Your task to perform on an android device: open app "TextNow: Call + Text Unlimited" (install if not already installed) and enter user name: "stoke@yahoo.com" and password: "prompted" Image 0: 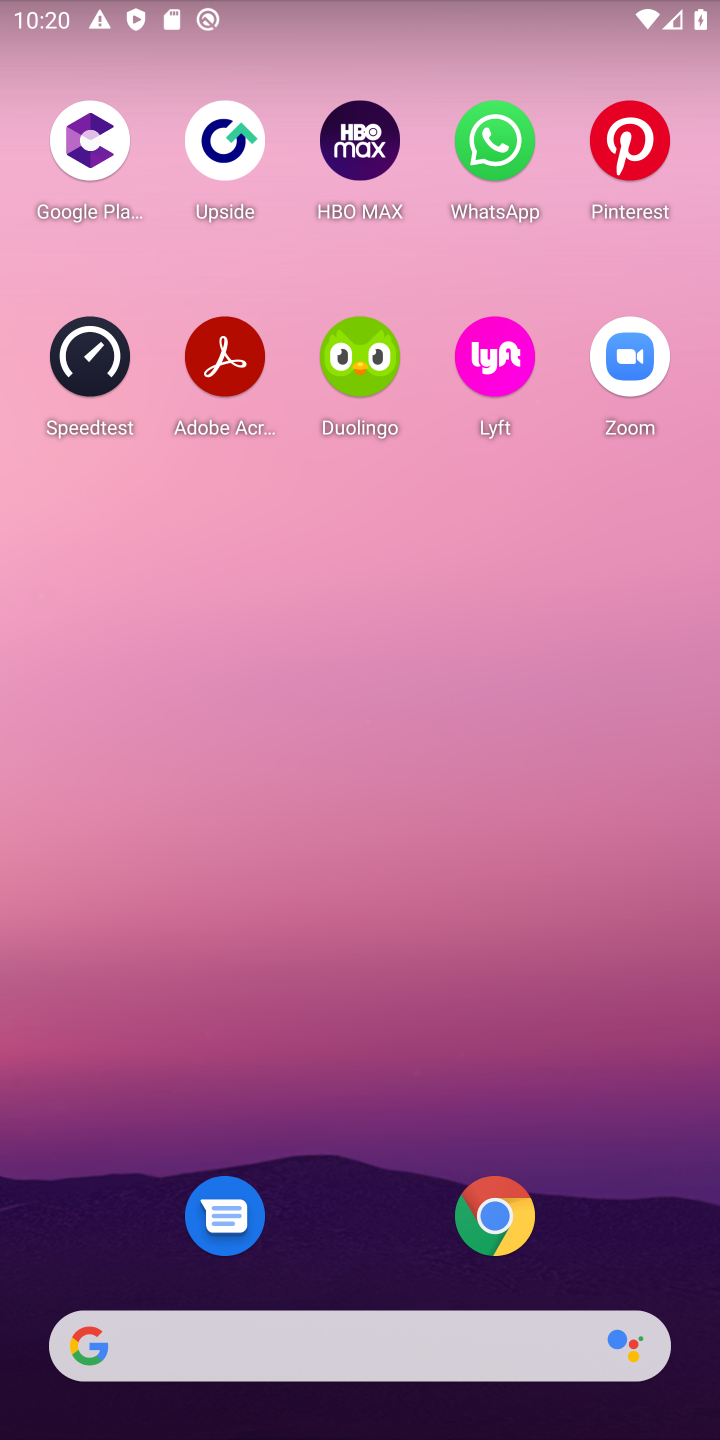
Step 0: drag from (464, 849) to (487, 23)
Your task to perform on an android device: open app "TextNow: Call + Text Unlimited" (install if not already installed) and enter user name: "stoke@yahoo.com" and password: "prompted" Image 1: 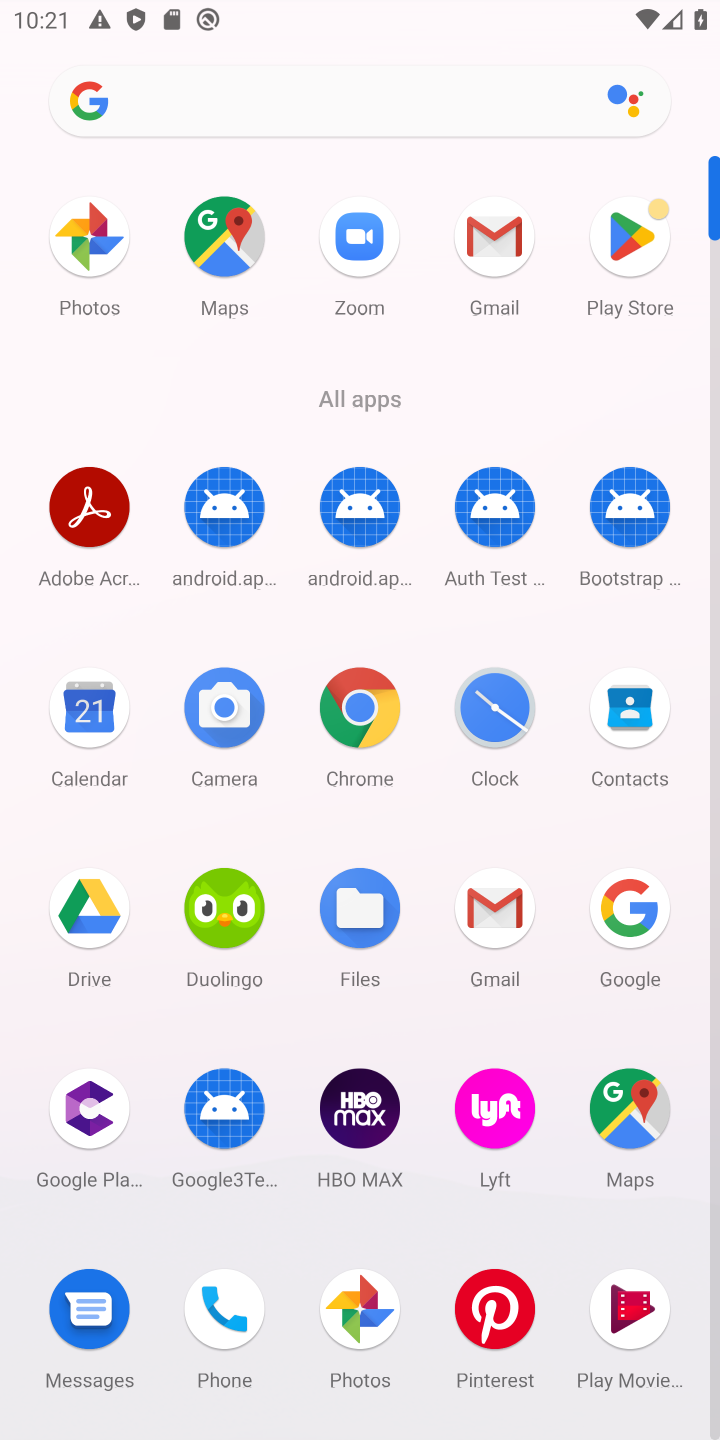
Step 1: click (616, 226)
Your task to perform on an android device: open app "TextNow: Call + Text Unlimited" (install if not already installed) and enter user name: "stoke@yahoo.com" and password: "prompted" Image 2: 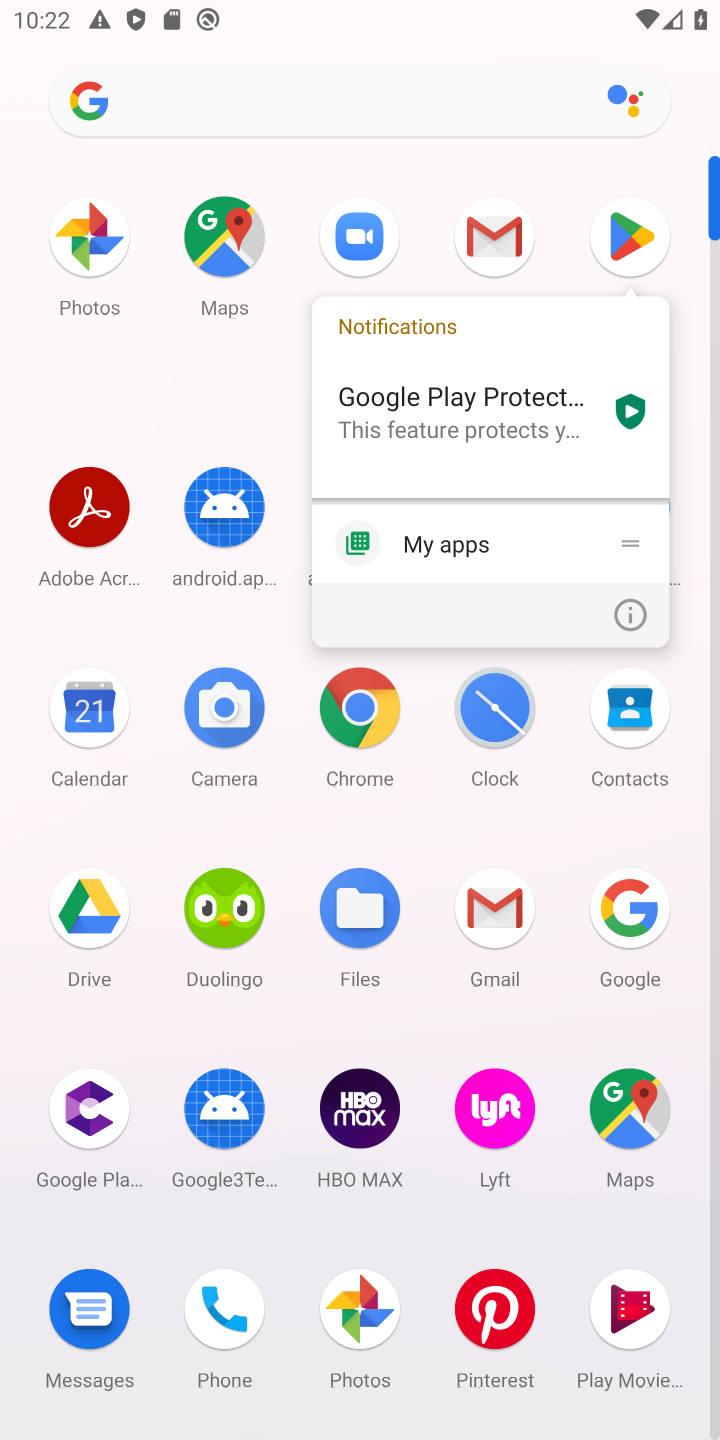
Step 2: click (610, 257)
Your task to perform on an android device: open app "TextNow: Call + Text Unlimited" (install if not already installed) and enter user name: "stoke@yahoo.com" and password: "prompted" Image 3: 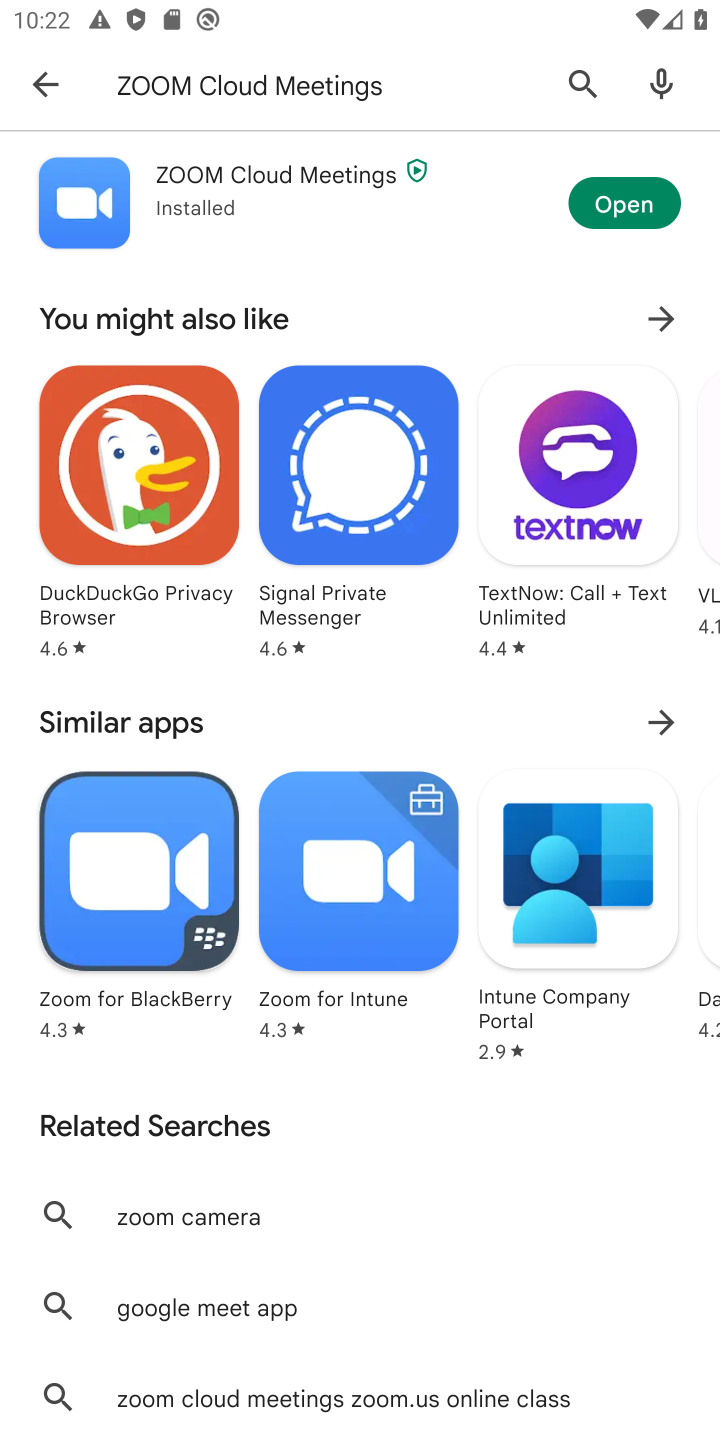
Step 3: press back button
Your task to perform on an android device: open app "TextNow: Call + Text Unlimited" (install if not already installed) and enter user name: "stoke@yahoo.com" and password: "prompted" Image 4: 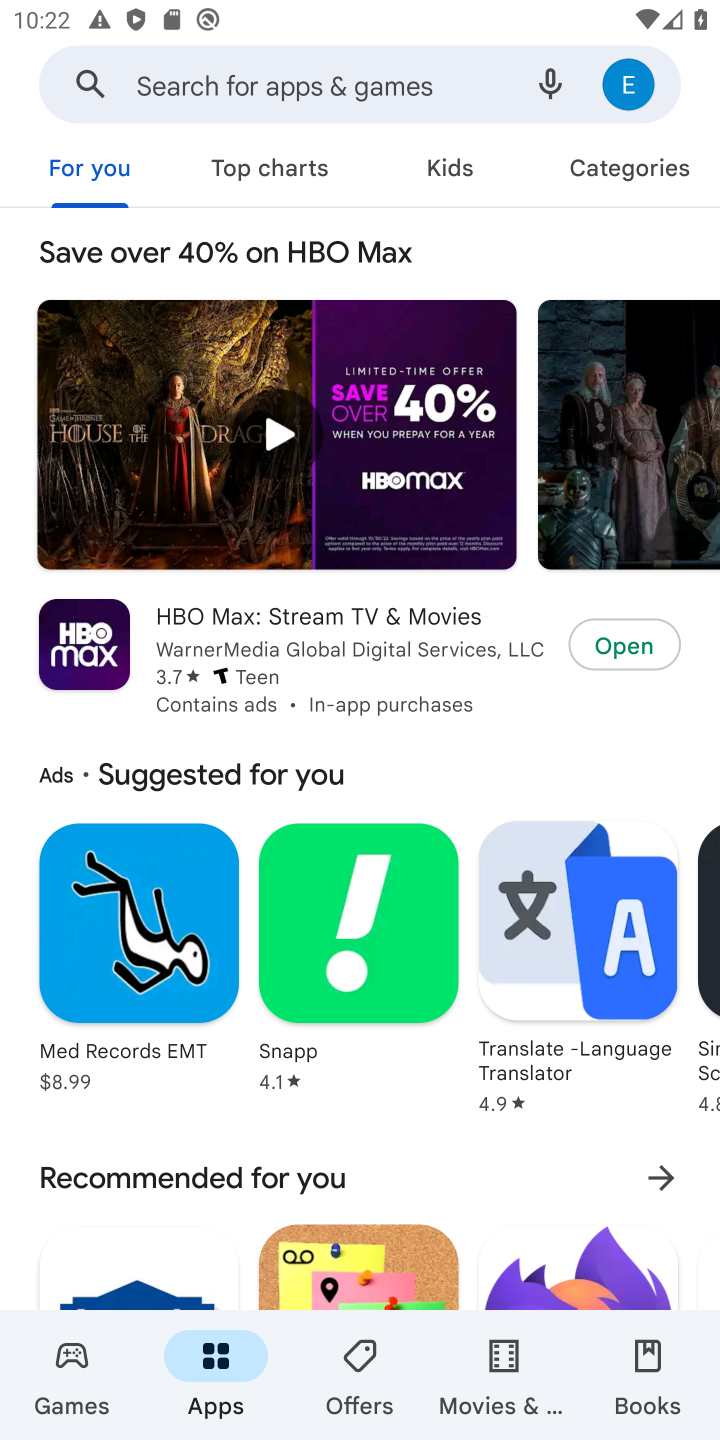
Step 4: click (284, 121)
Your task to perform on an android device: open app "TextNow: Call + Text Unlimited" (install if not already installed) and enter user name: "stoke@yahoo.com" and password: "prompted" Image 5: 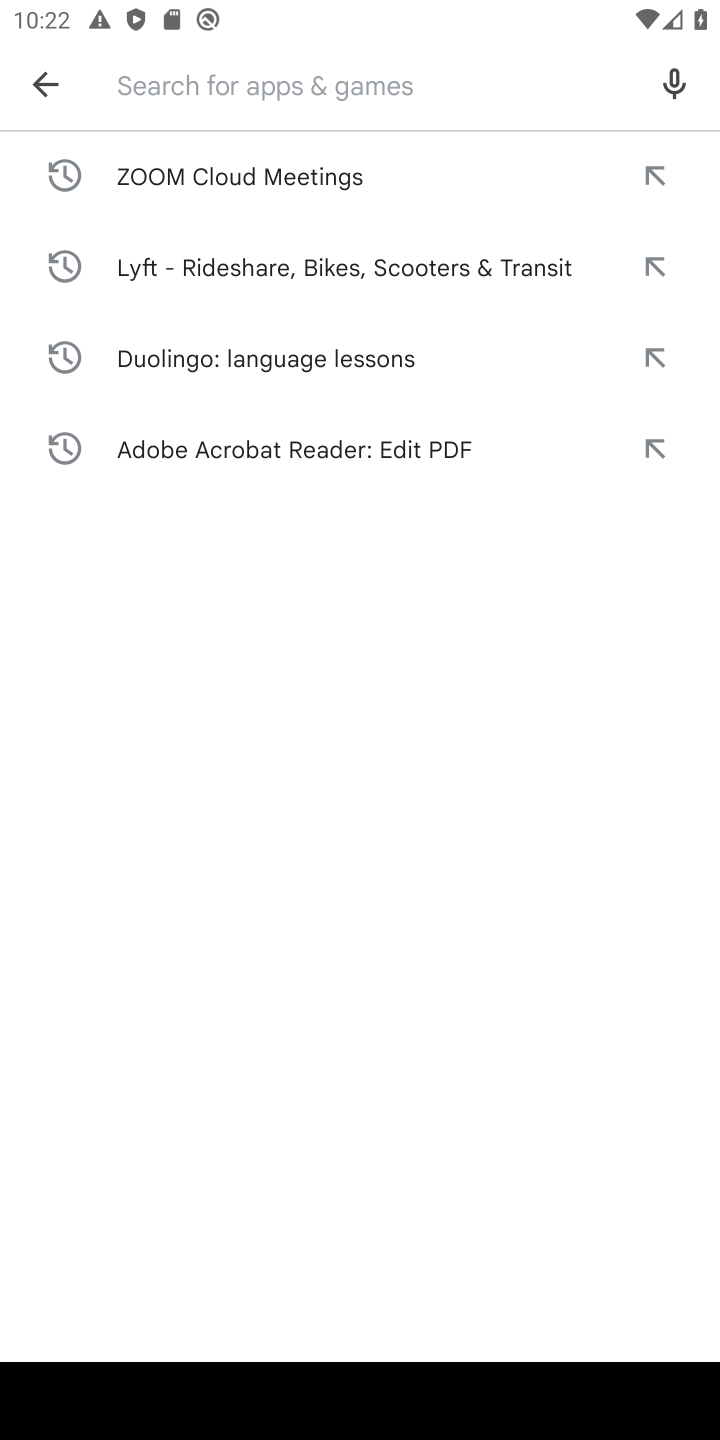
Step 5: press enter
Your task to perform on an android device: open app "TextNow: Call + Text Unlimited" (install if not already installed) and enter user name: "stoke@yahoo.com" and password: "prompted" Image 6: 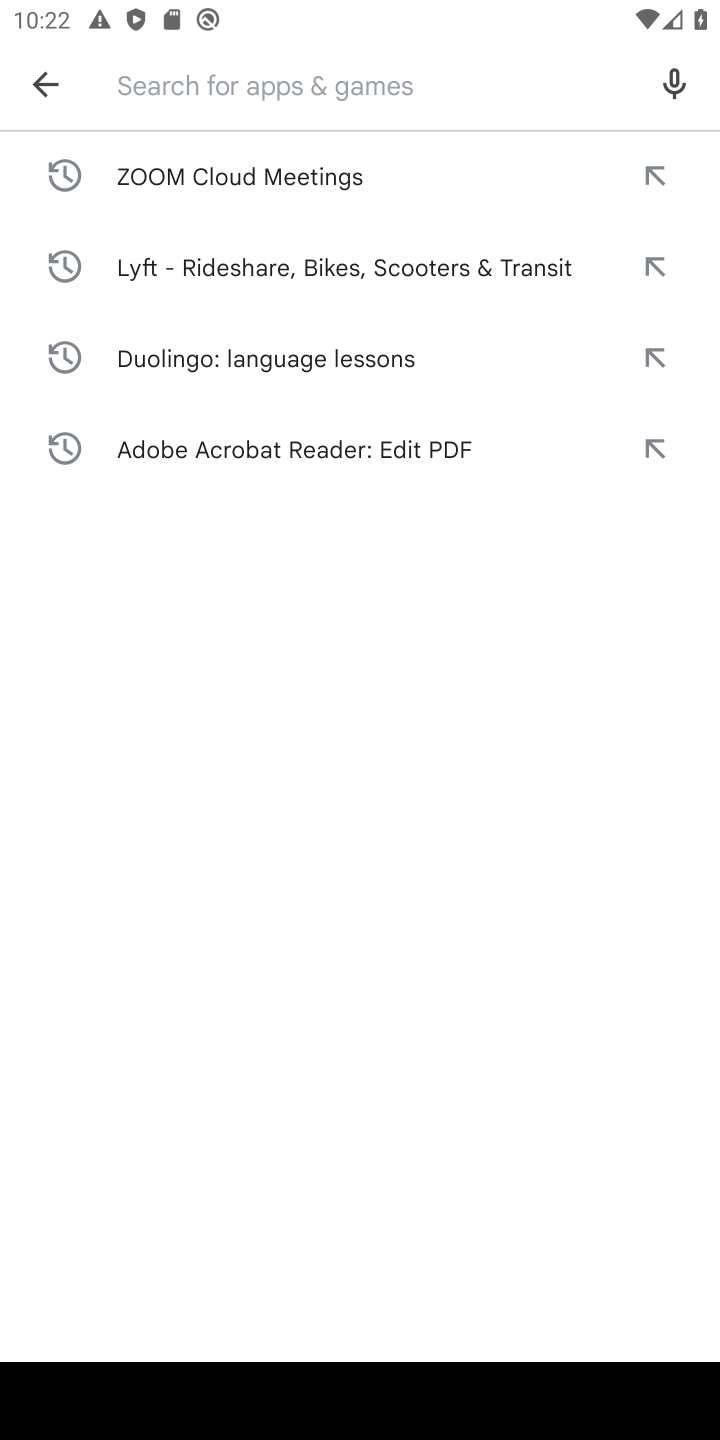
Step 6: type "TextNow: Call + Text Unlimited"
Your task to perform on an android device: open app "TextNow: Call + Text Unlimited" (install if not already installed) and enter user name: "stoke@yahoo.com" and password: "prompted" Image 7: 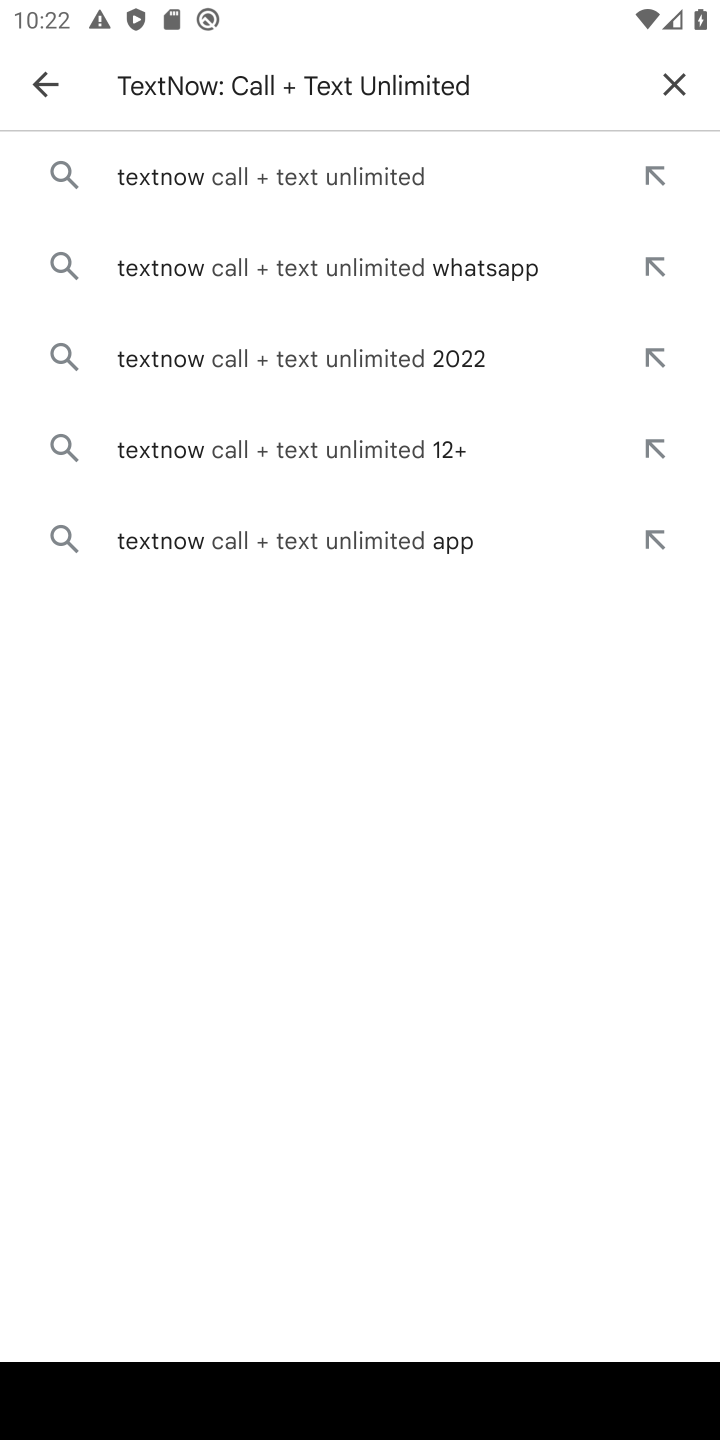
Step 7: click (289, 192)
Your task to perform on an android device: open app "TextNow: Call + Text Unlimited" (install if not already installed) and enter user name: "stoke@yahoo.com" and password: "prompted" Image 8: 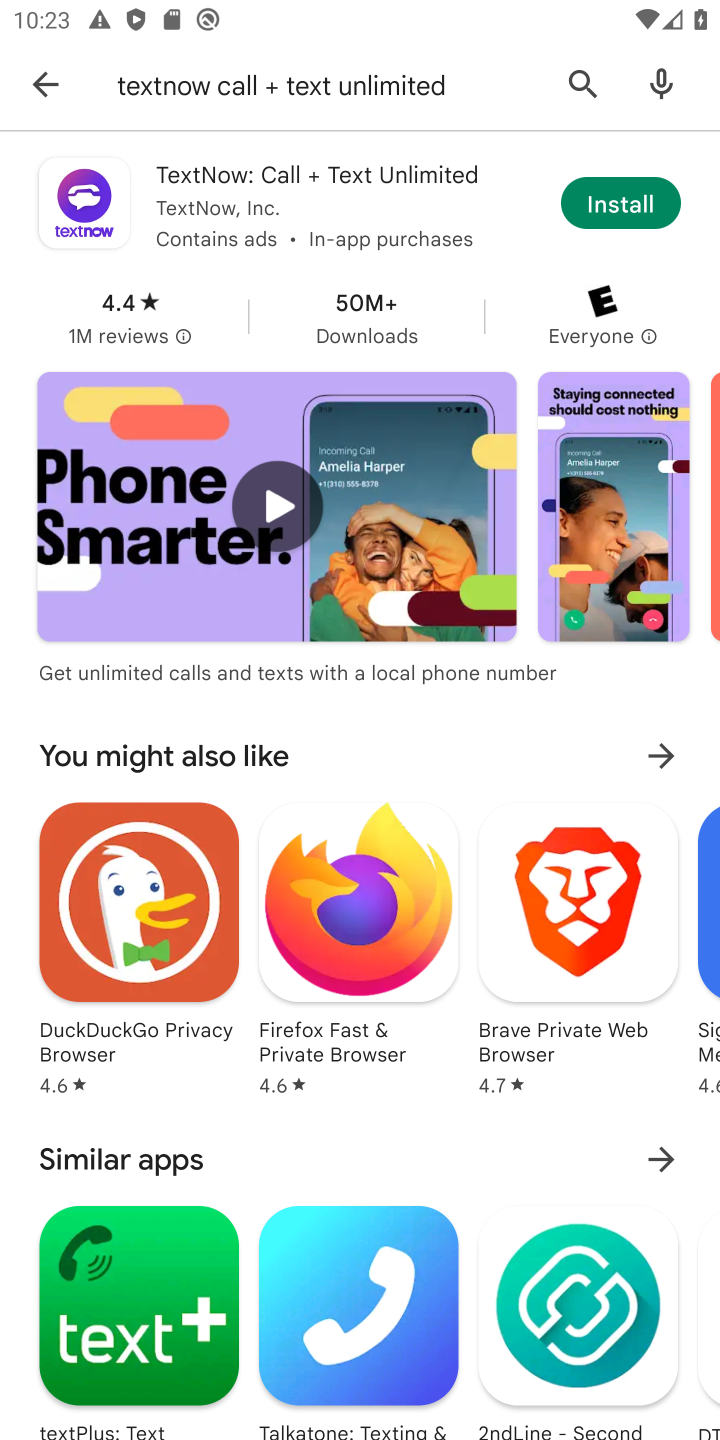
Step 8: click (623, 211)
Your task to perform on an android device: open app "TextNow: Call + Text Unlimited" (install if not already installed) and enter user name: "stoke@yahoo.com" and password: "prompted" Image 9: 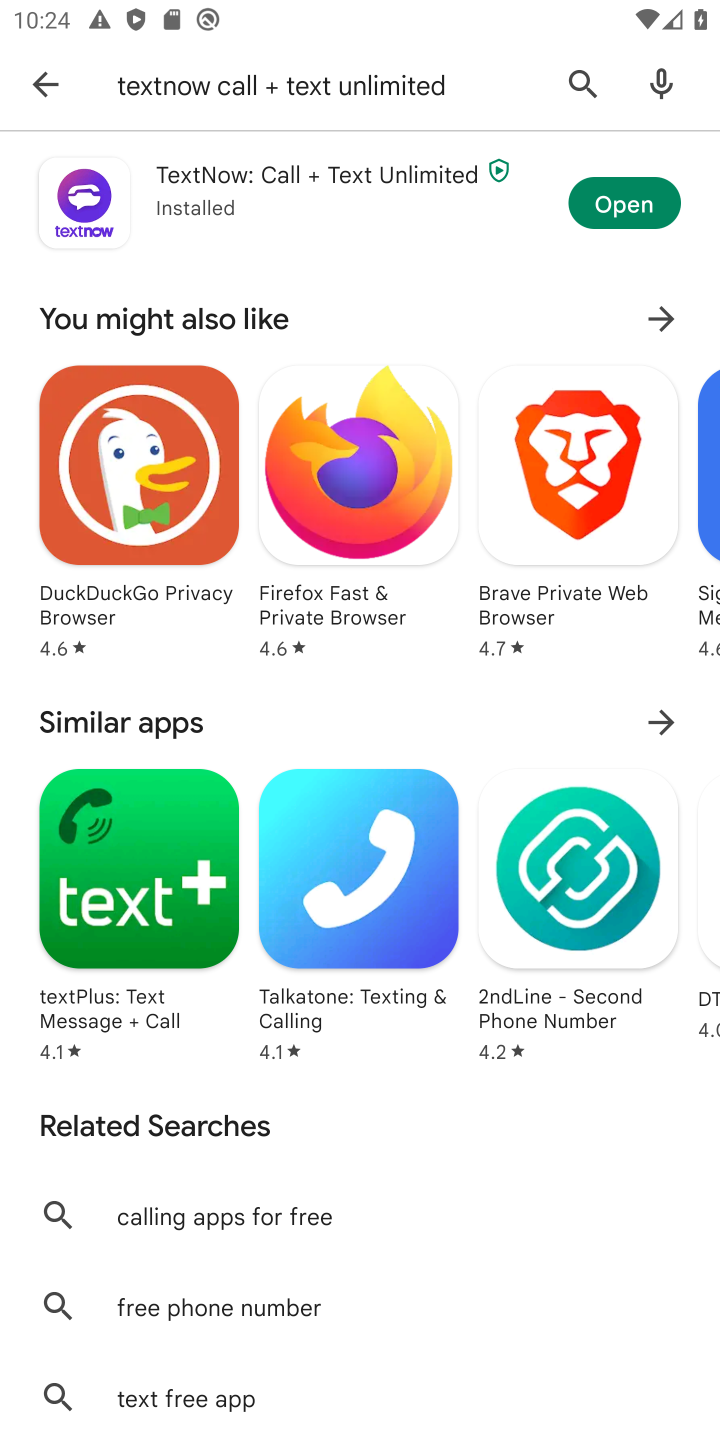
Step 9: click (585, 191)
Your task to perform on an android device: open app "TextNow: Call + Text Unlimited" (install if not already installed) and enter user name: "stoke@yahoo.com" and password: "prompted" Image 10: 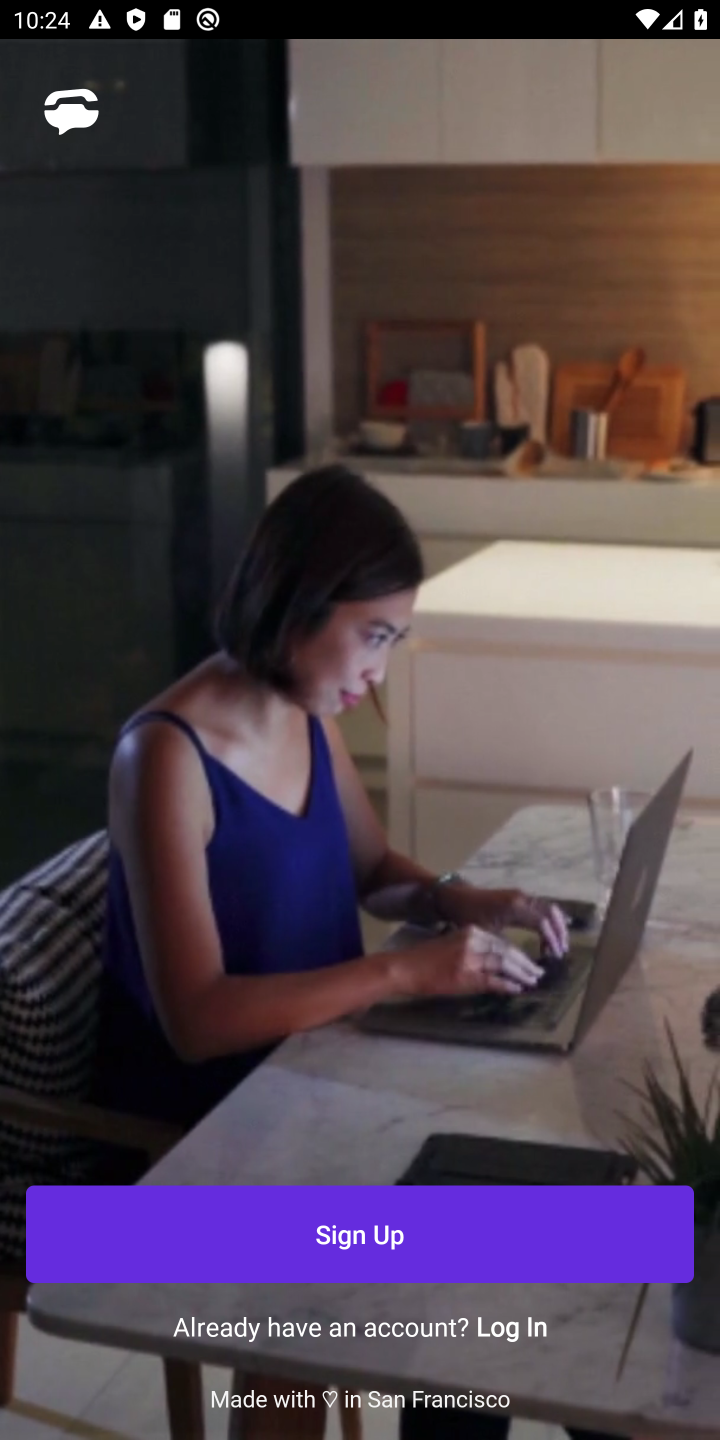
Step 10: click (477, 1326)
Your task to perform on an android device: open app "TextNow: Call + Text Unlimited" (install if not already installed) and enter user name: "stoke@yahoo.com" and password: "prompted" Image 11: 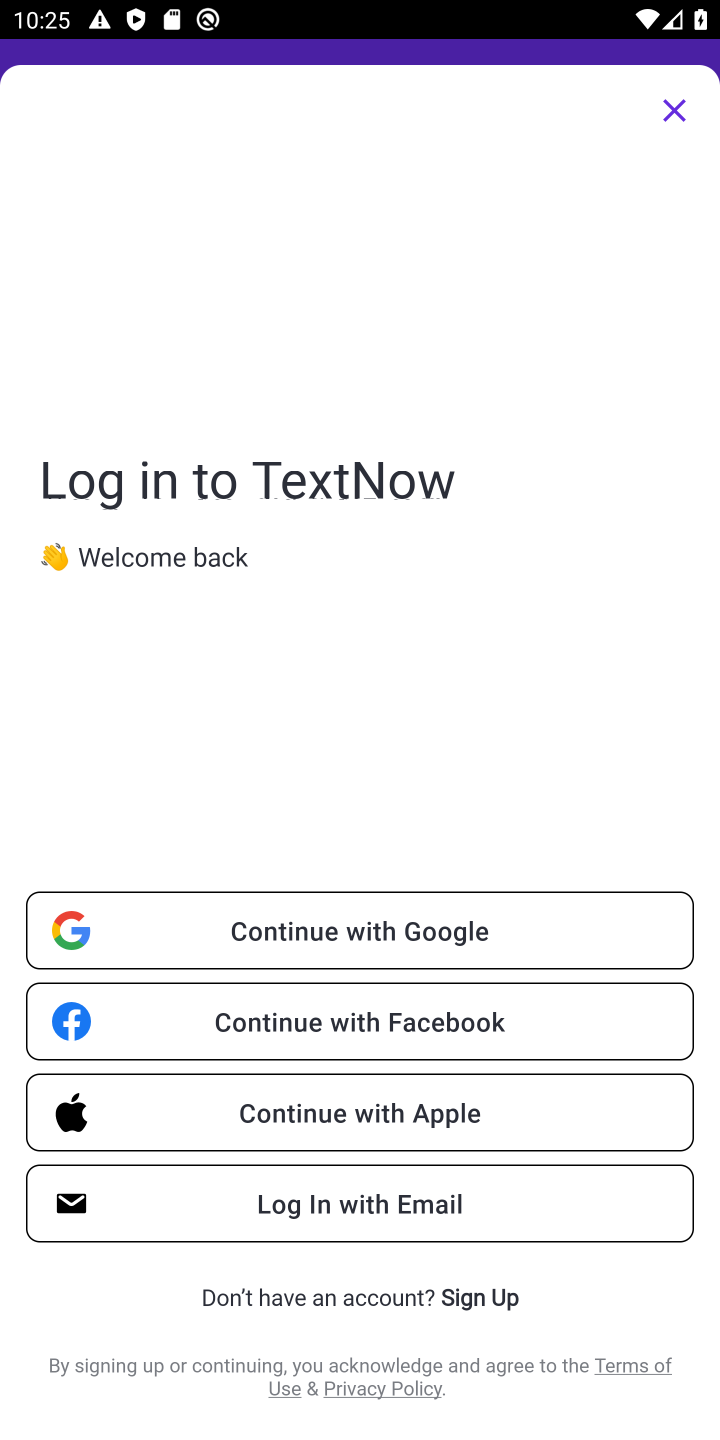
Step 11: click (320, 1201)
Your task to perform on an android device: open app "TextNow: Call + Text Unlimited" (install if not already installed) and enter user name: "stoke@yahoo.com" and password: "prompted" Image 12: 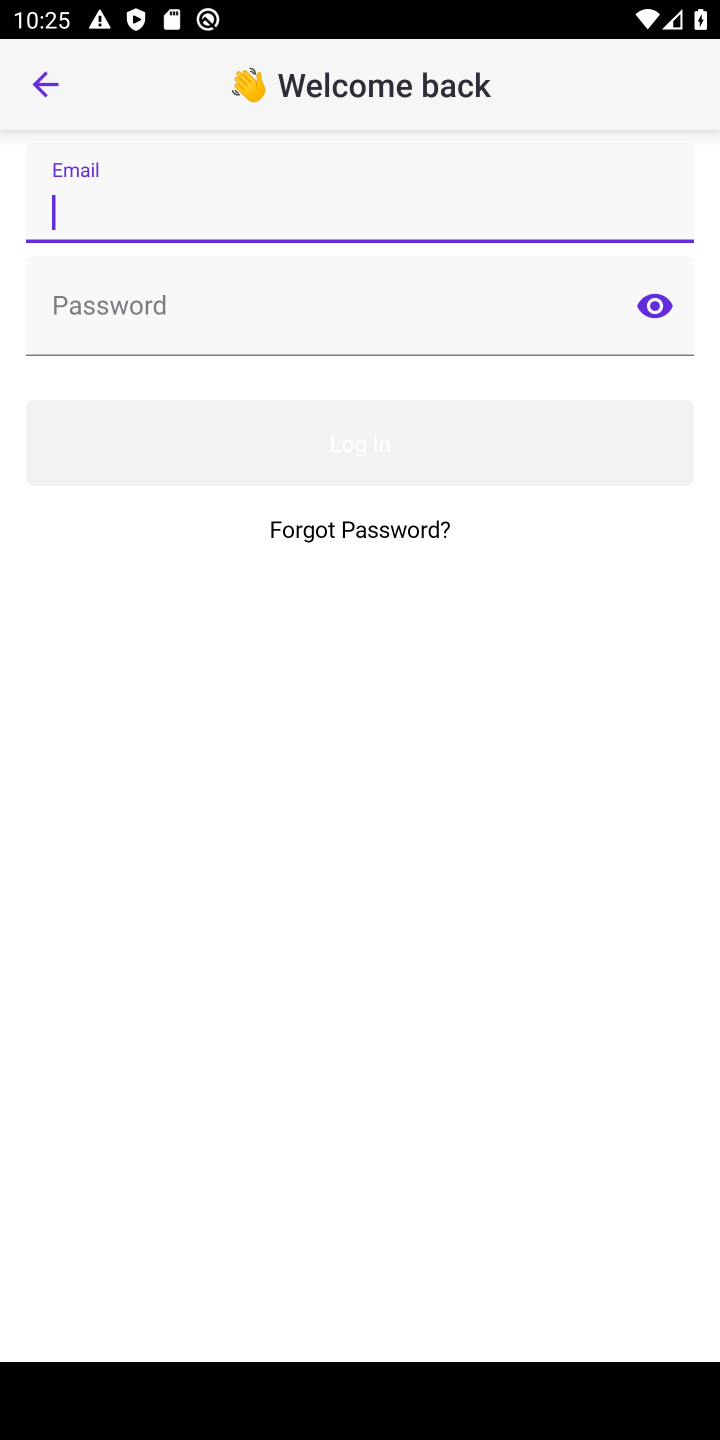
Step 12: type "stoke@yahoo.com"
Your task to perform on an android device: open app "TextNow: Call + Text Unlimited" (install if not already installed) and enter user name: "stoke@yahoo.com" and password: "prompted" Image 13: 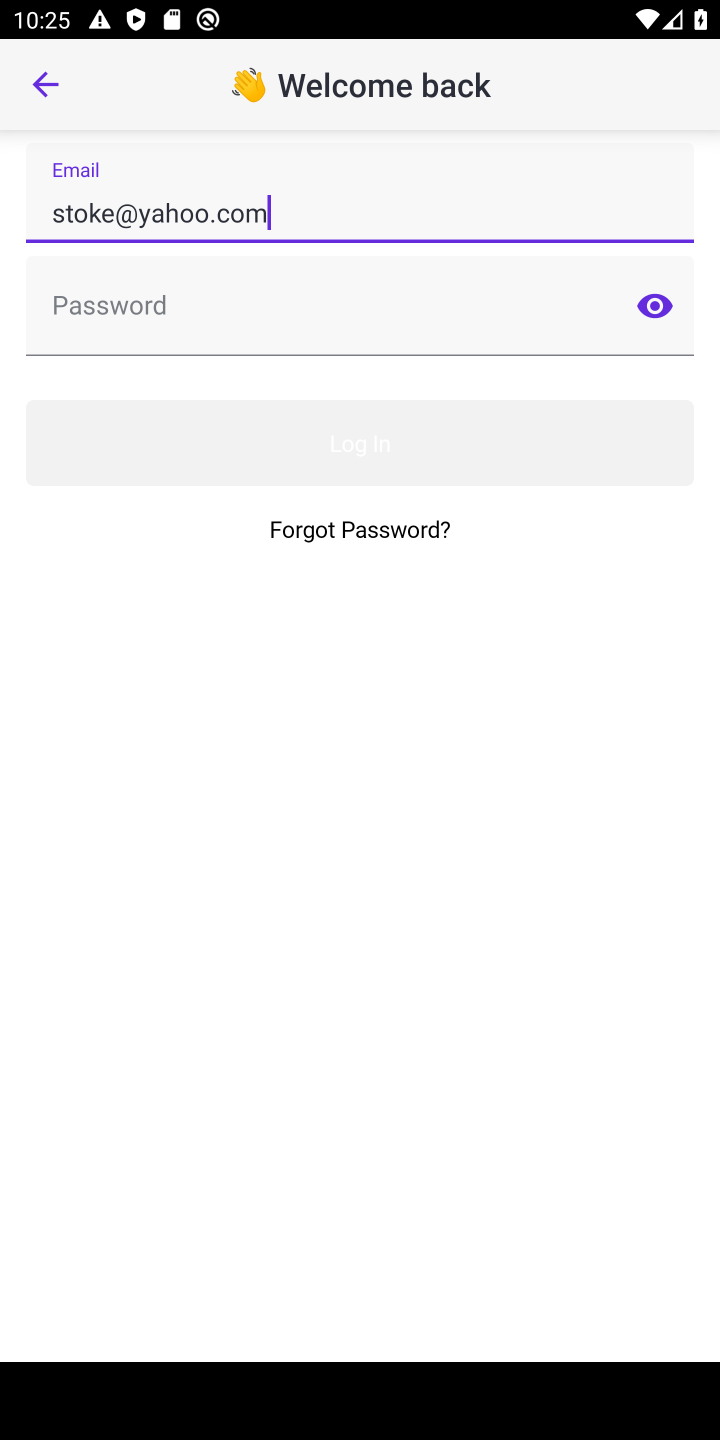
Step 13: press enter
Your task to perform on an android device: open app "TextNow: Call + Text Unlimited" (install if not already installed) and enter user name: "stoke@yahoo.com" and password: "prompted" Image 14: 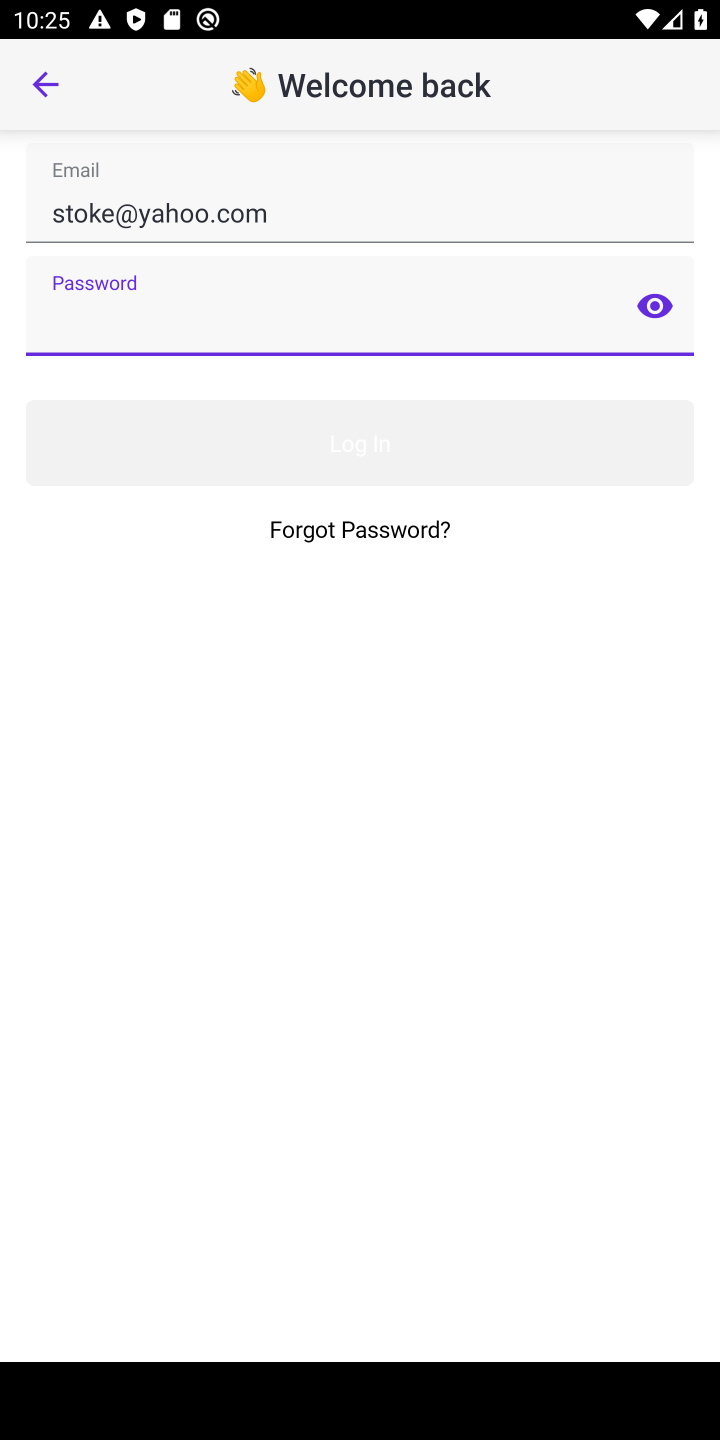
Step 14: click (92, 314)
Your task to perform on an android device: open app "TextNow: Call + Text Unlimited" (install if not already installed) and enter user name: "stoke@yahoo.com" and password: "prompted" Image 15: 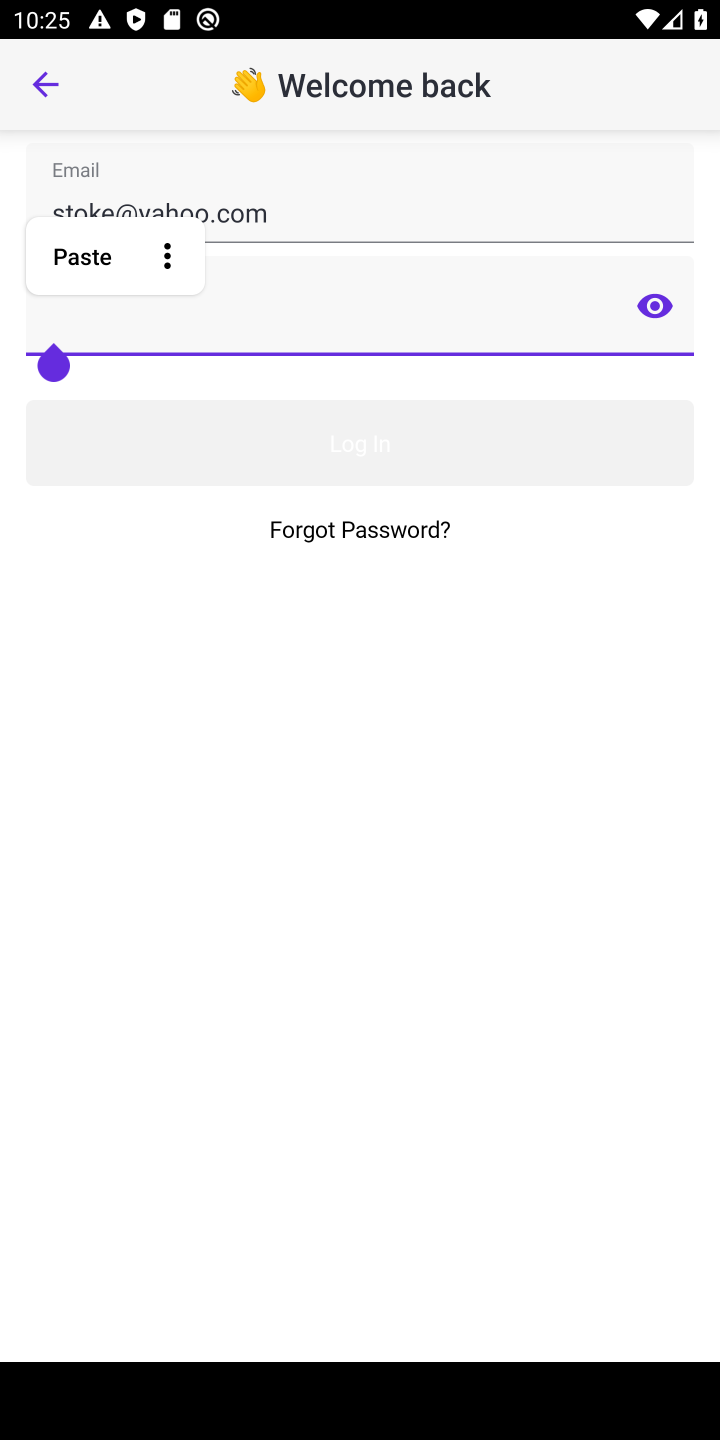
Step 15: type "prompted"
Your task to perform on an android device: open app "TextNow: Call + Text Unlimited" (install if not already installed) and enter user name: "stoke@yahoo.com" and password: "prompted" Image 16: 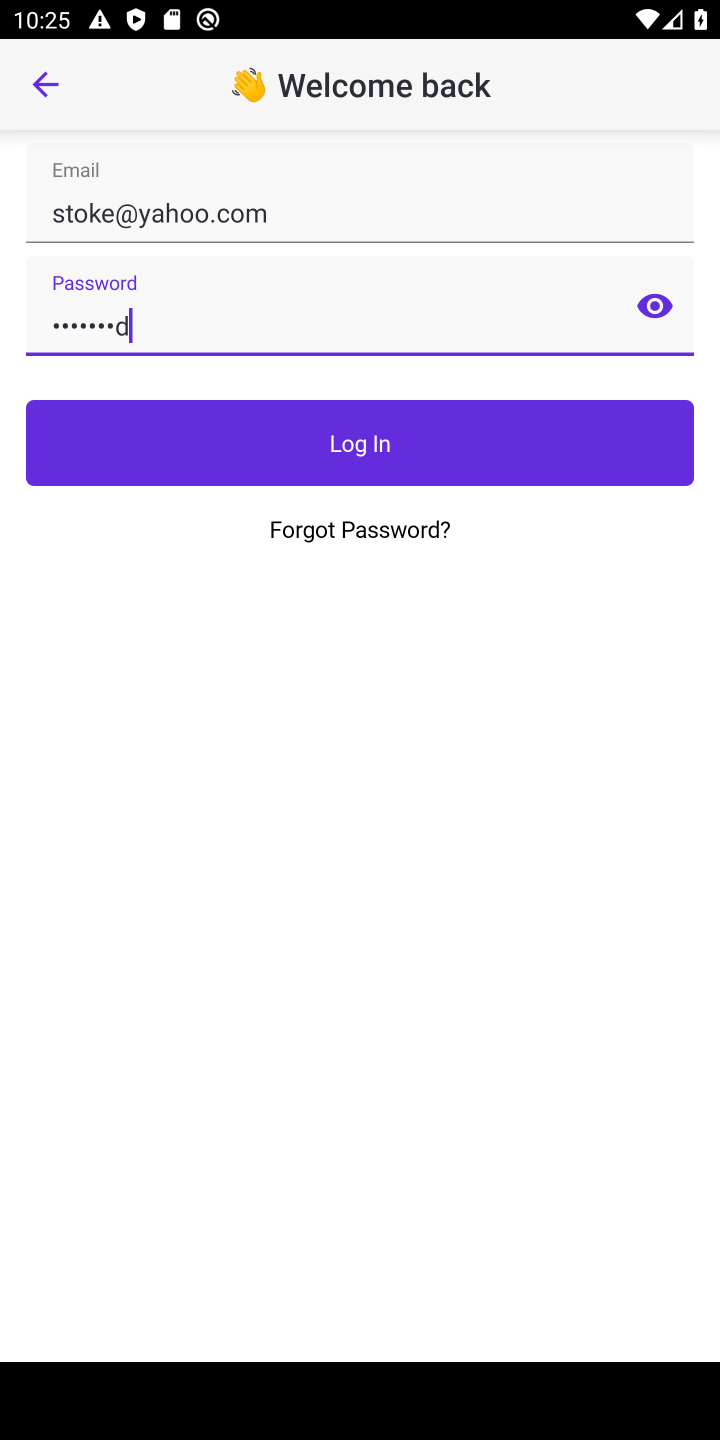
Step 16: press enter
Your task to perform on an android device: open app "TextNow: Call + Text Unlimited" (install if not already installed) and enter user name: "stoke@yahoo.com" and password: "prompted" Image 17: 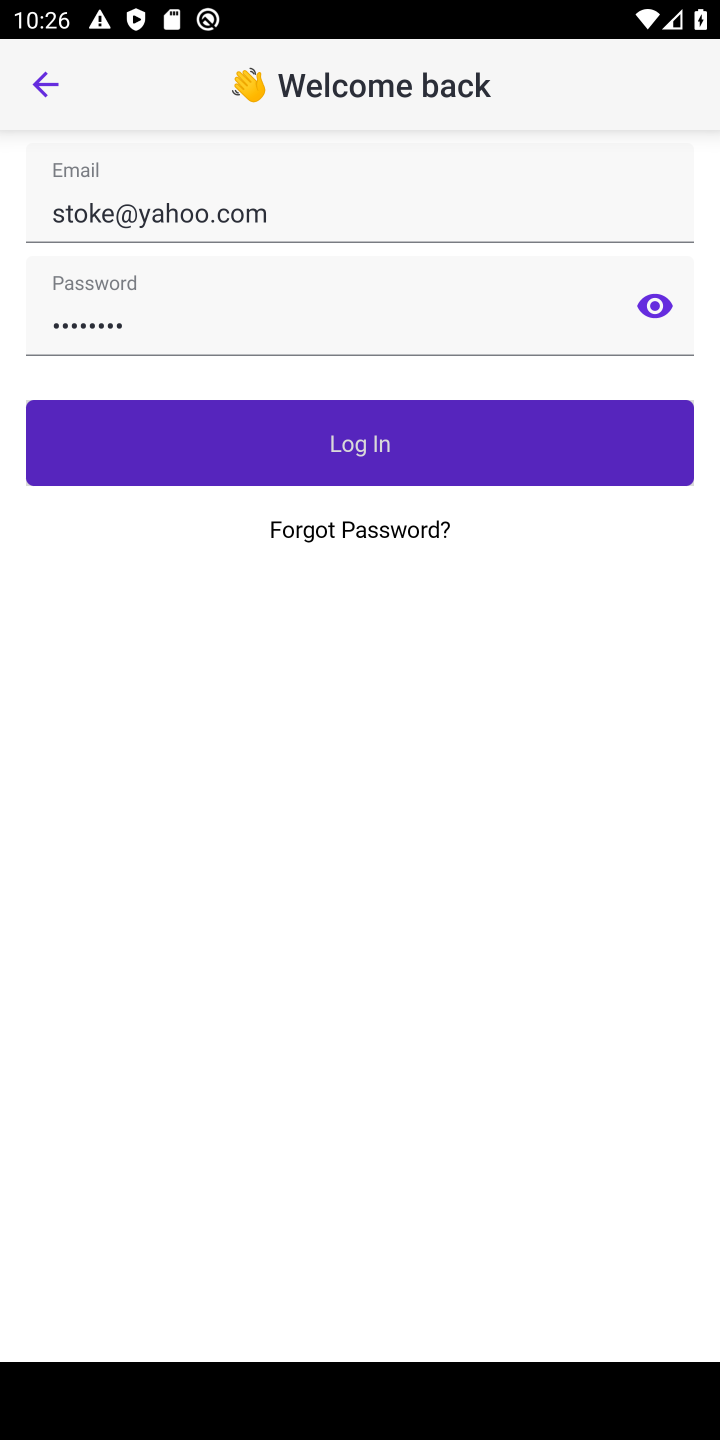
Step 17: click (397, 455)
Your task to perform on an android device: open app "TextNow: Call + Text Unlimited" (install if not already installed) and enter user name: "stoke@yahoo.com" and password: "prompted" Image 18: 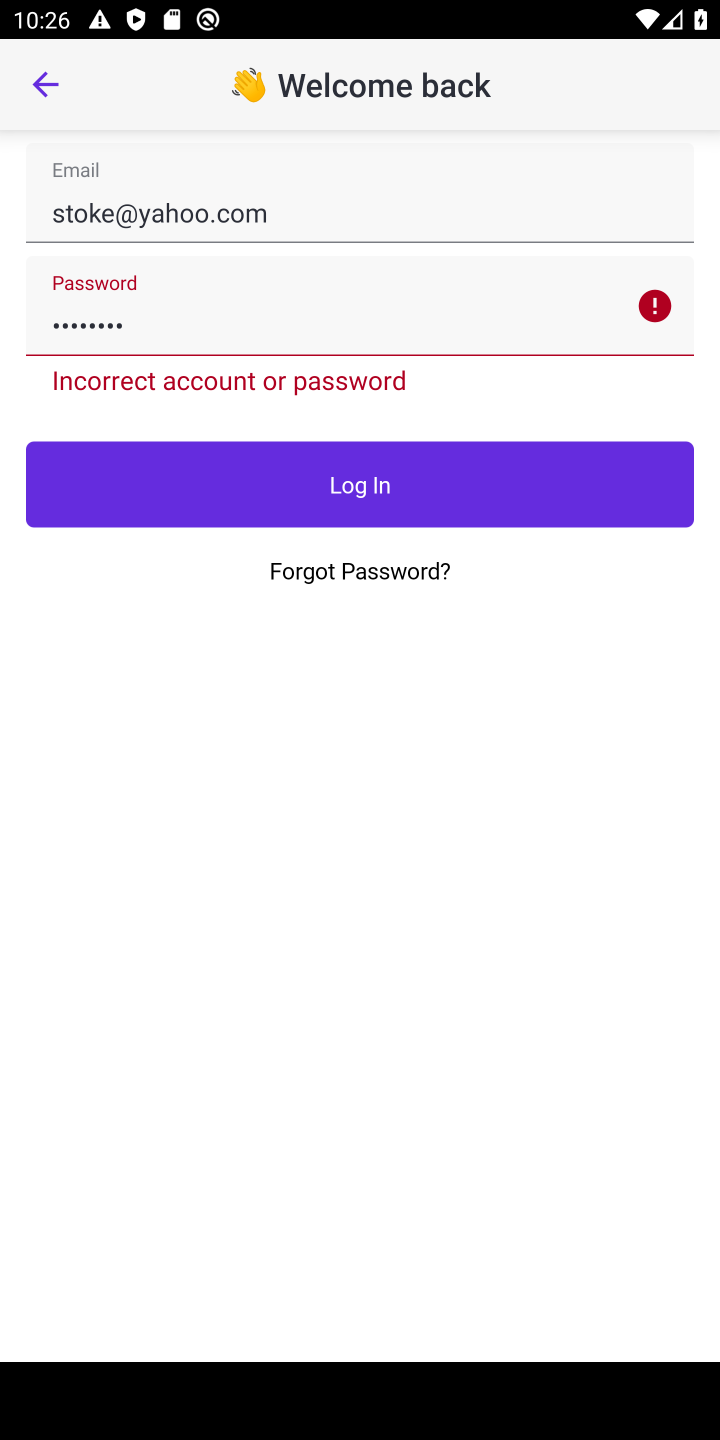
Step 18: task complete